Your task to perform on an android device: toggle javascript in the chrome app Image 0: 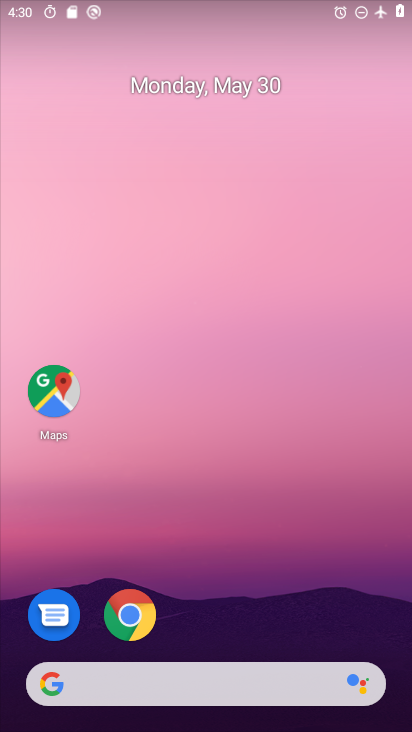
Step 0: click (129, 614)
Your task to perform on an android device: toggle javascript in the chrome app Image 1: 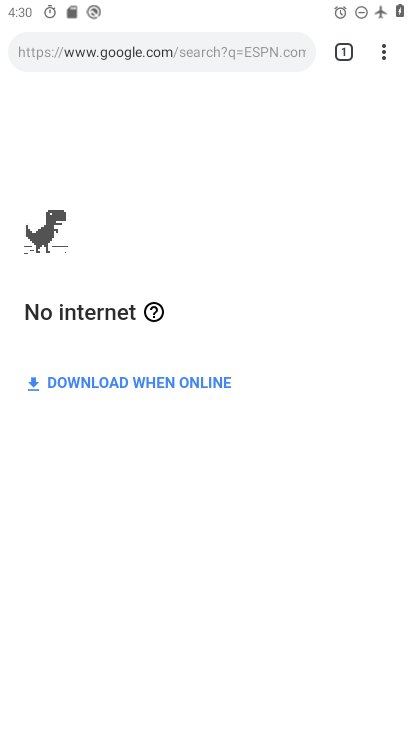
Step 1: click (383, 52)
Your task to perform on an android device: toggle javascript in the chrome app Image 2: 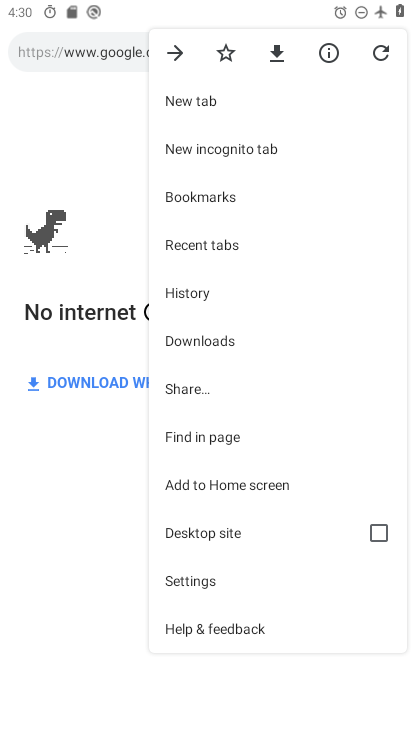
Step 2: click (188, 576)
Your task to perform on an android device: toggle javascript in the chrome app Image 3: 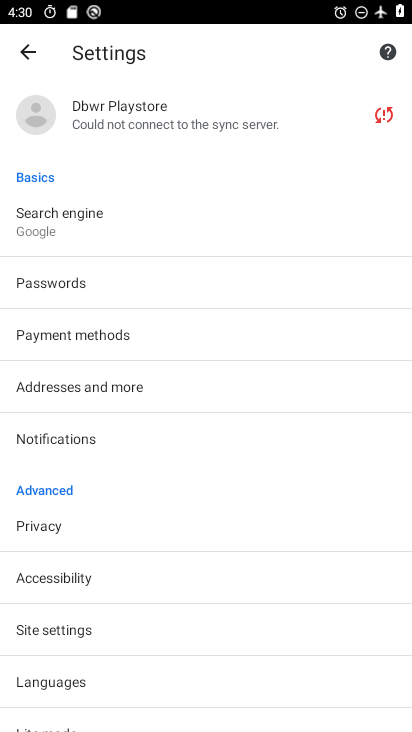
Step 3: click (44, 626)
Your task to perform on an android device: toggle javascript in the chrome app Image 4: 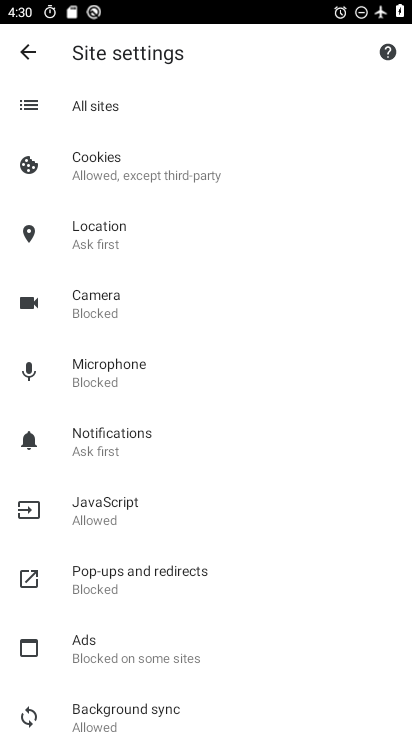
Step 4: click (105, 505)
Your task to perform on an android device: toggle javascript in the chrome app Image 5: 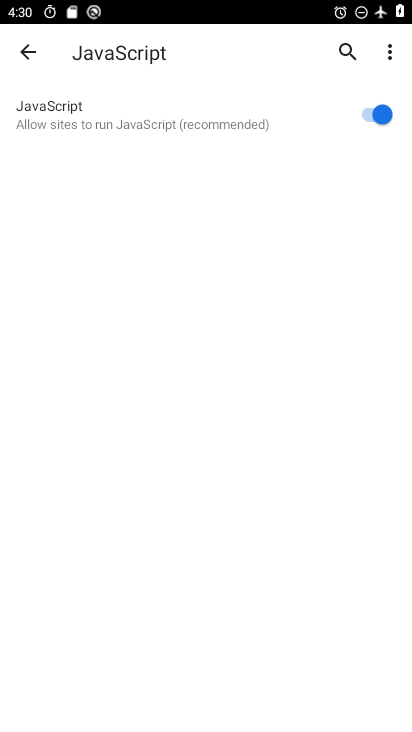
Step 5: click (363, 111)
Your task to perform on an android device: toggle javascript in the chrome app Image 6: 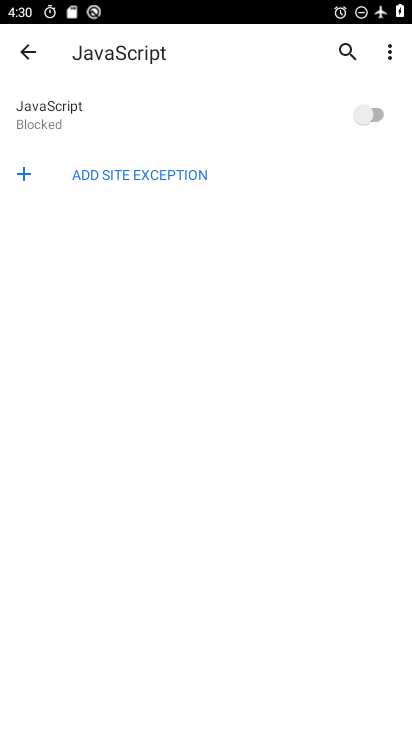
Step 6: task complete